Your task to perform on an android device: see tabs open on other devices in the chrome app Image 0: 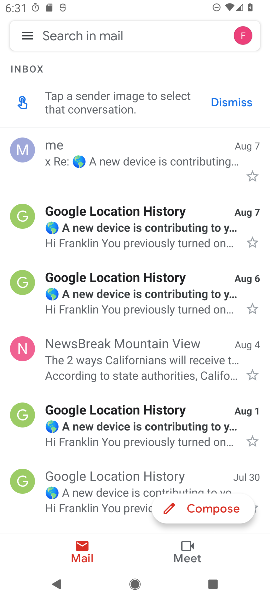
Step 0: press home button
Your task to perform on an android device: see tabs open on other devices in the chrome app Image 1: 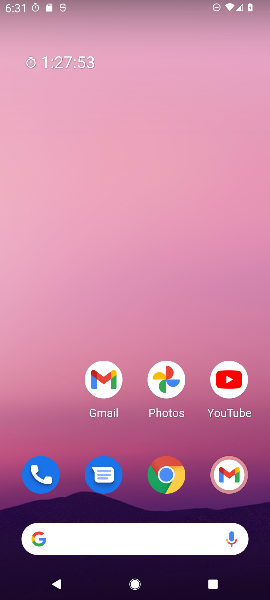
Step 1: drag from (65, 440) to (68, 226)
Your task to perform on an android device: see tabs open on other devices in the chrome app Image 2: 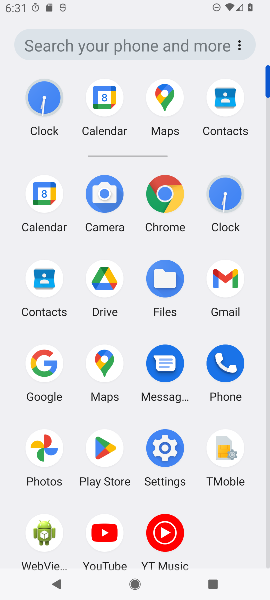
Step 2: click (167, 192)
Your task to perform on an android device: see tabs open on other devices in the chrome app Image 3: 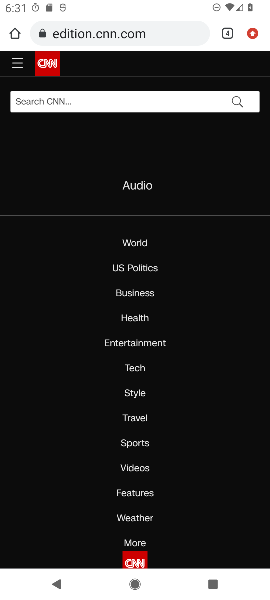
Step 3: click (253, 32)
Your task to perform on an android device: see tabs open on other devices in the chrome app Image 4: 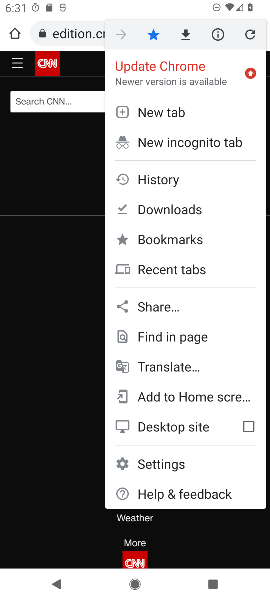
Step 4: click (192, 266)
Your task to perform on an android device: see tabs open on other devices in the chrome app Image 5: 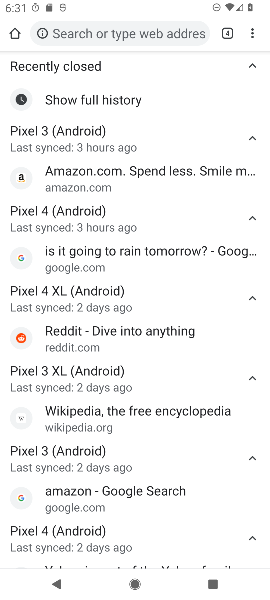
Step 5: click (226, 34)
Your task to perform on an android device: see tabs open on other devices in the chrome app Image 6: 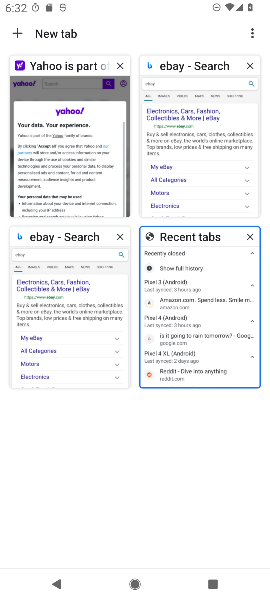
Step 6: task complete